Your task to perform on an android device: Empty the shopping cart on bestbuy.com. Search for razer huntsman on bestbuy.com, select the first entry, add it to the cart, then select checkout. Image 0: 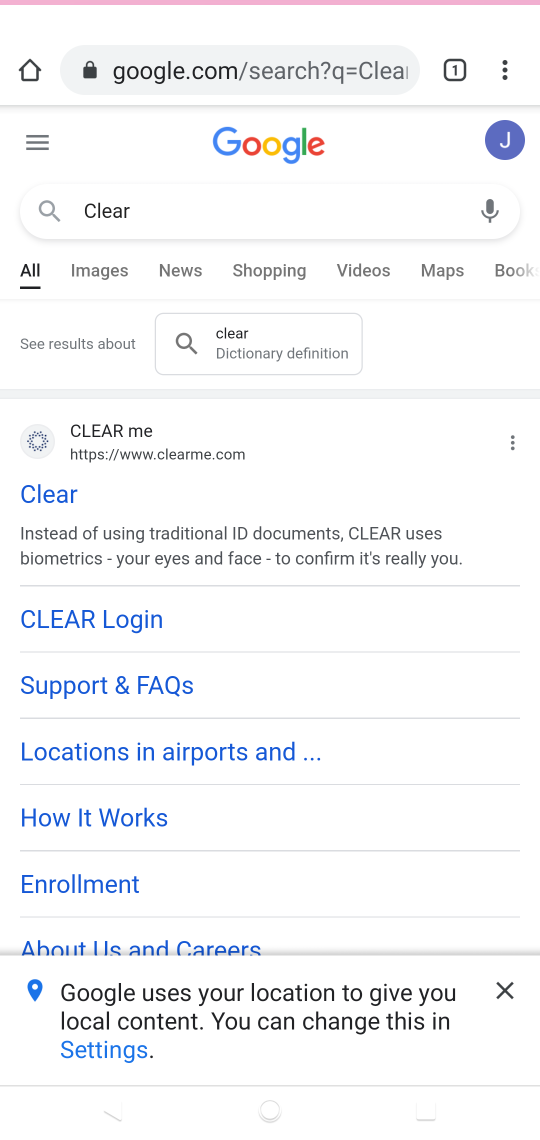
Step 0: press home button
Your task to perform on an android device: Empty the shopping cart on bestbuy.com. Search for razer huntsman on bestbuy.com, select the first entry, add it to the cart, then select checkout. Image 1: 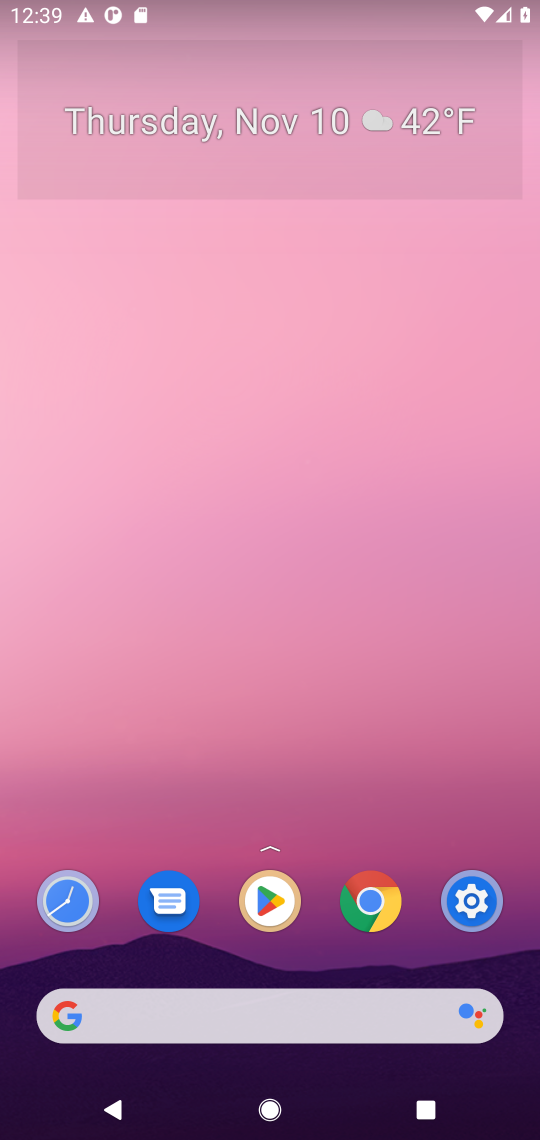
Step 1: drag from (265, 856) to (364, 0)
Your task to perform on an android device: Empty the shopping cart on bestbuy.com. Search for razer huntsman on bestbuy.com, select the first entry, add it to the cart, then select checkout. Image 2: 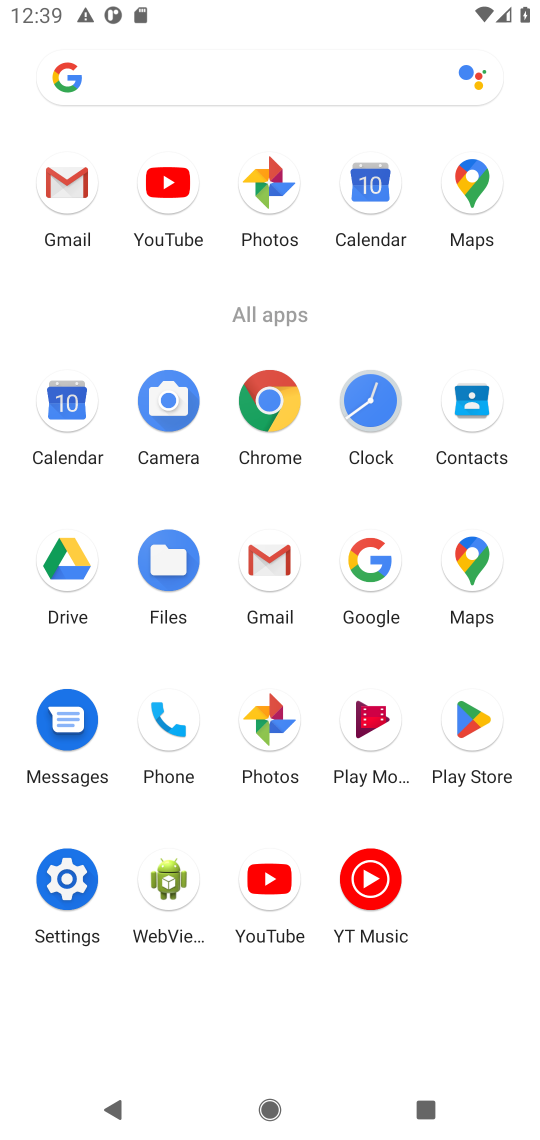
Step 2: click (267, 397)
Your task to perform on an android device: Empty the shopping cart on bestbuy.com. Search for razer huntsman on bestbuy.com, select the first entry, add it to the cart, then select checkout. Image 3: 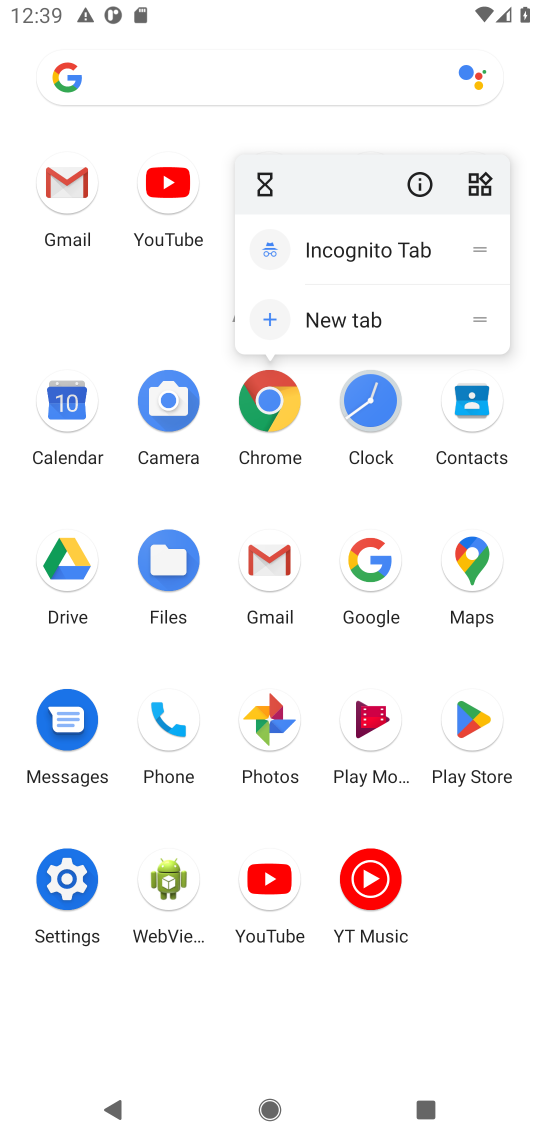
Step 3: click (245, 406)
Your task to perform on an android device: Empty the shopping cart on bestbuy.com. Search for razer huntsman on bestbuy.com, select the first entry, add it to the cart, then select checkout. Image 4: 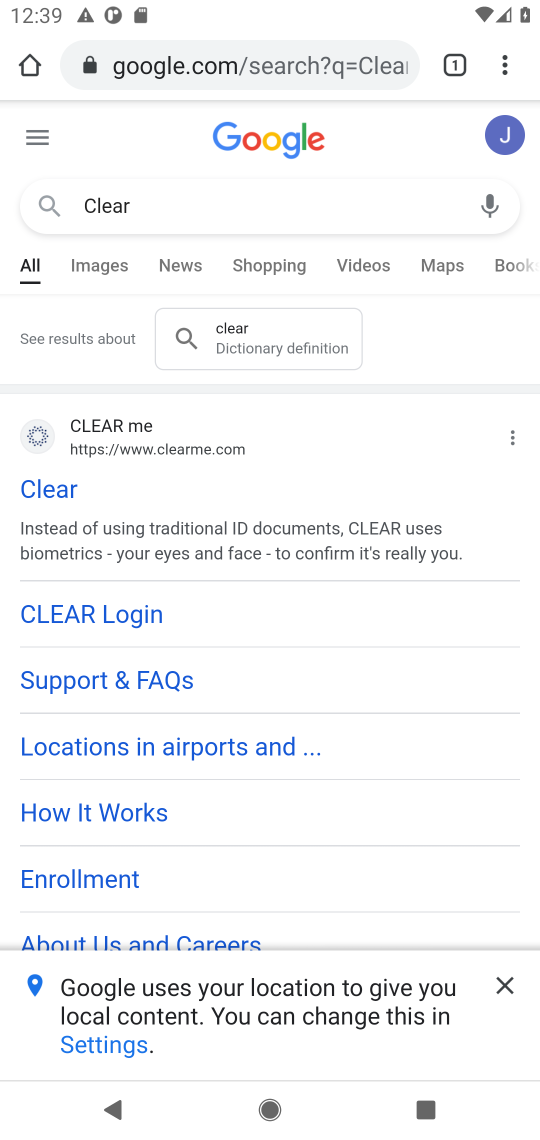
Step 4: click (171, 55)
Your task to perform on an android device: Empty the shopping cart on bestbuy.com. Search for razer huntsman on bestbuy.com, select the first entry, add it to the cart, then select checkout. Image 5: 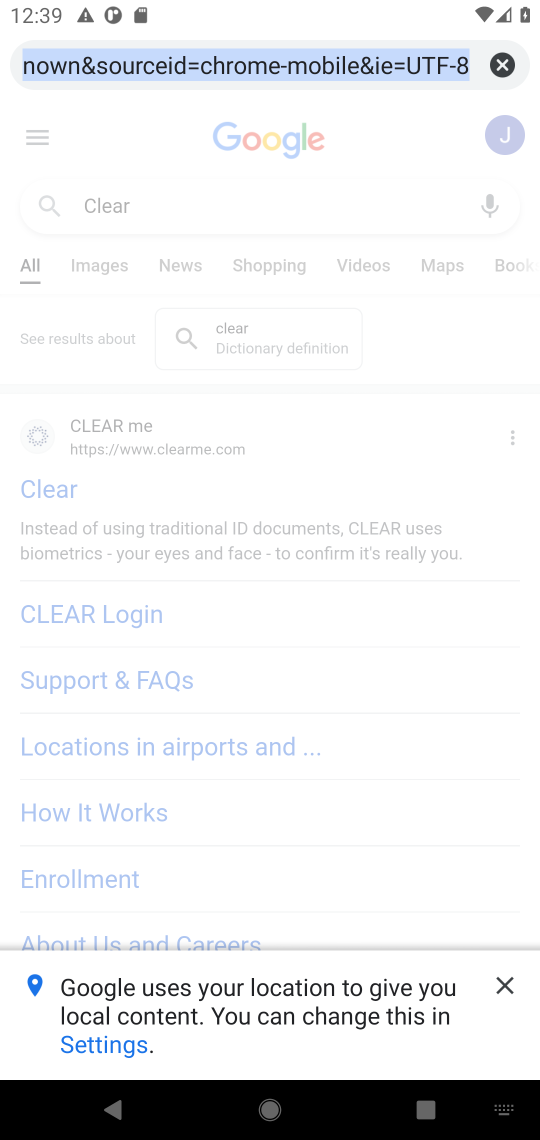
Step 5: click (484, 67)
Your task to perform on an android device: Empty the shopping cart on bestbuy.com. Search for razer huntsman on bestbuy.com, select the first entry, add it to the cart, then select checkout. Image 6: 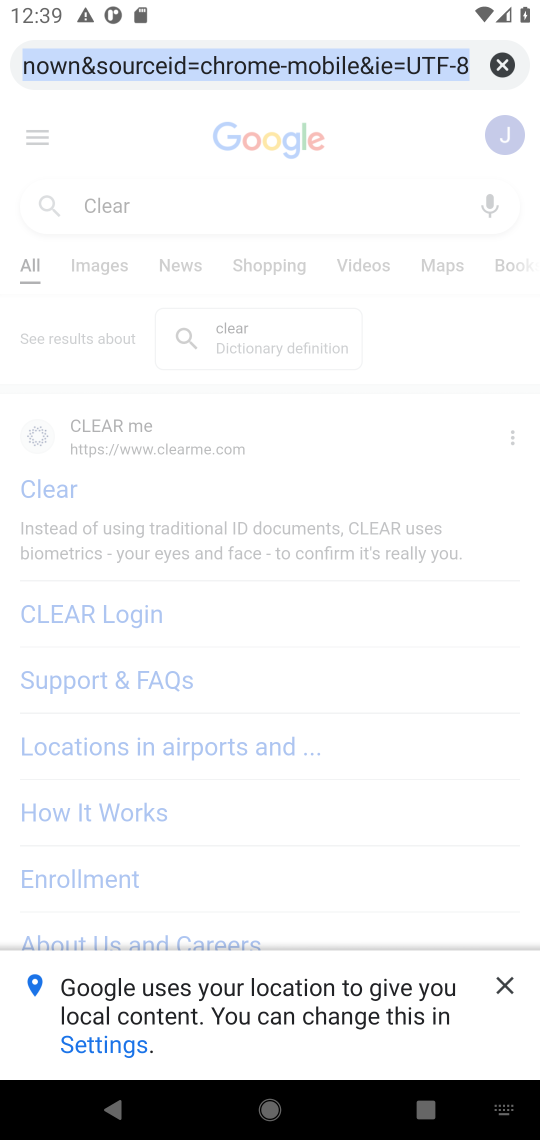
Step 6: click (493, 69)
Your task to perform on an android device: Empty the shopping cart on bestbuy.com. Search for razer huntsman on bestbuy.com, select the first entry, add it to the cart, then select checkout. Image 7: 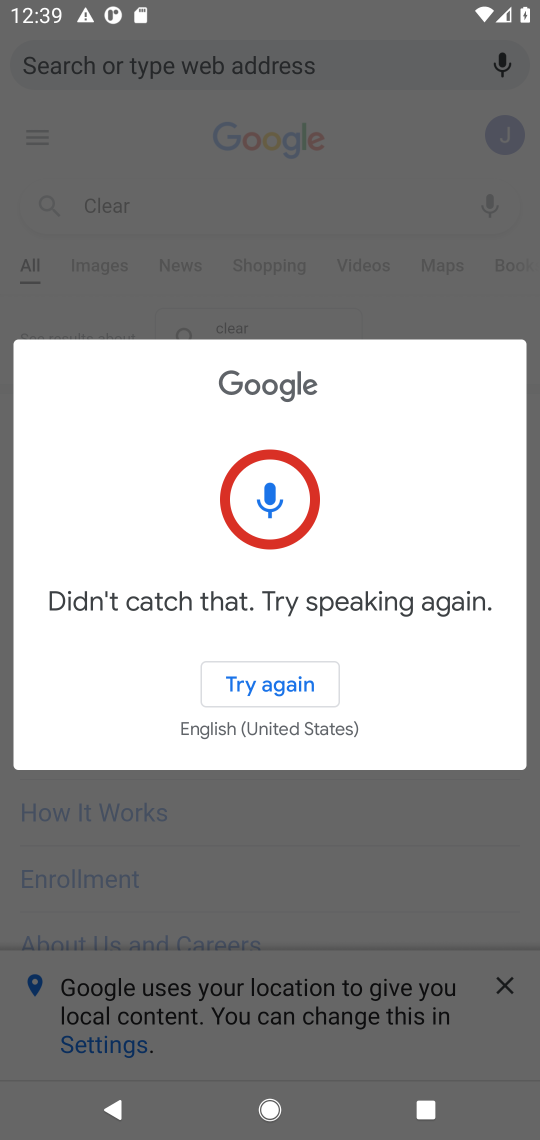
Step 7: click (275, 59)
Your task to perform on an android device: Empty the shopping cart on bestbuy.com. Search for razer huntsman on bestbuy.com, select the first entry, add it to the cart, then select checkout. Image 8: 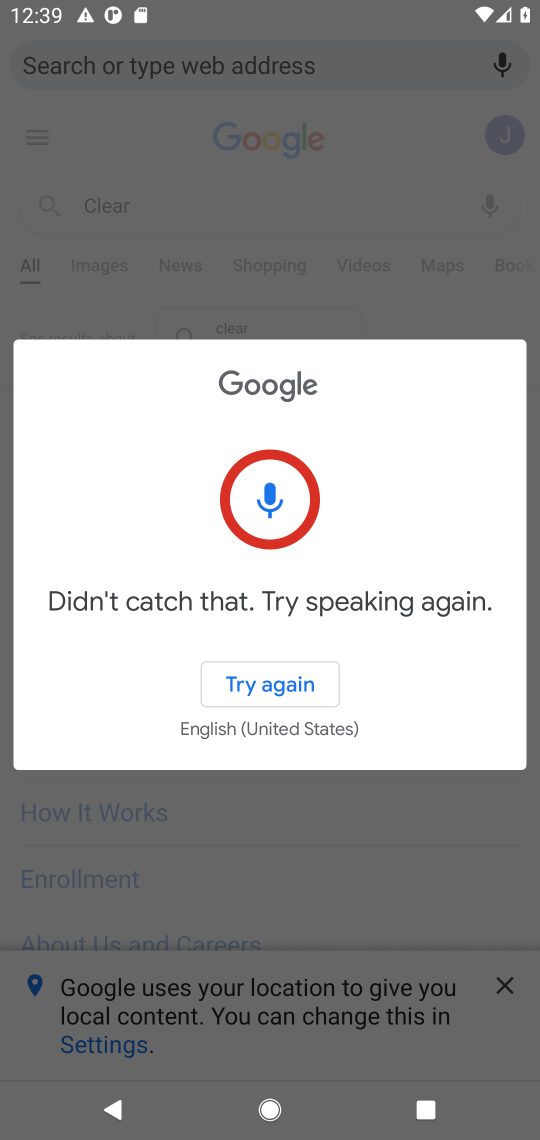
Step 8: click (273, 59)
Your task to perform on an android device: Empty the shopping cart on bestbuy.com. Search for razer huntsman on bestbuy.com, select the first entry, add it to the cart, then select checkout. Image 9: 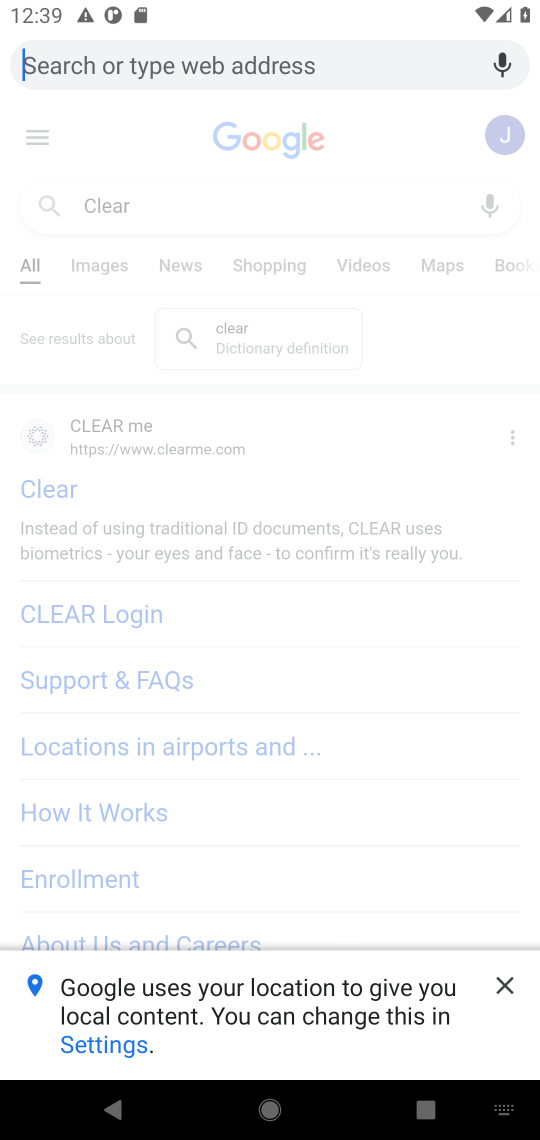
Step 9: type "bestbuy.com"
Your task to perform on an android device: Empty the shopping cart on bestbuy.com. Search for razer huntsman on bestbuy.com, select the first entry, add it to the cart, then select checkout. Image 10: 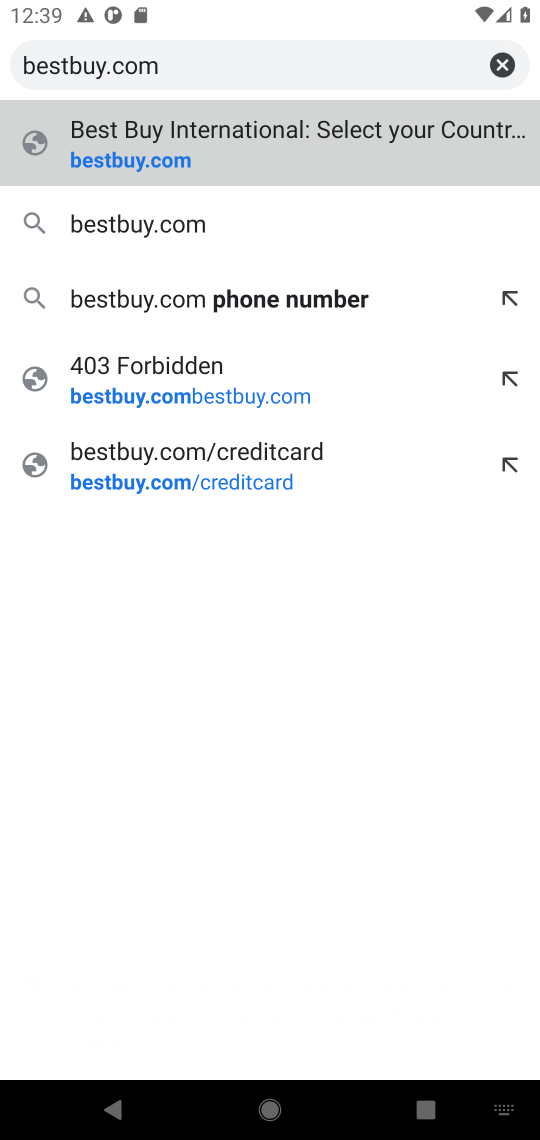
Step 10: press enter
Your task to perform on an android device: Empty the shopping cart on bestbuy.com. Search for razer huntsman on bestbuy.com, select the first entry, add it to the cart, then select checkout. Image 11: 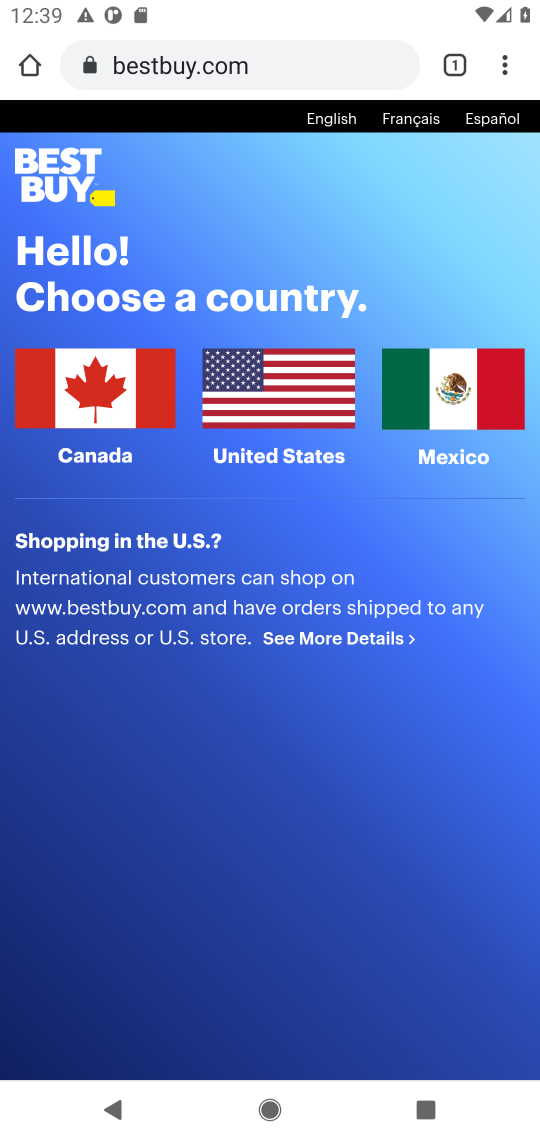
Step 11: click (84, 398)
Your task to perform on an android device: Empty the shopping cart on bestbuy.com. Search for razer huntsman on bestbuy.com, select the first entry, add it to the cart, then select checkout. Image 12: 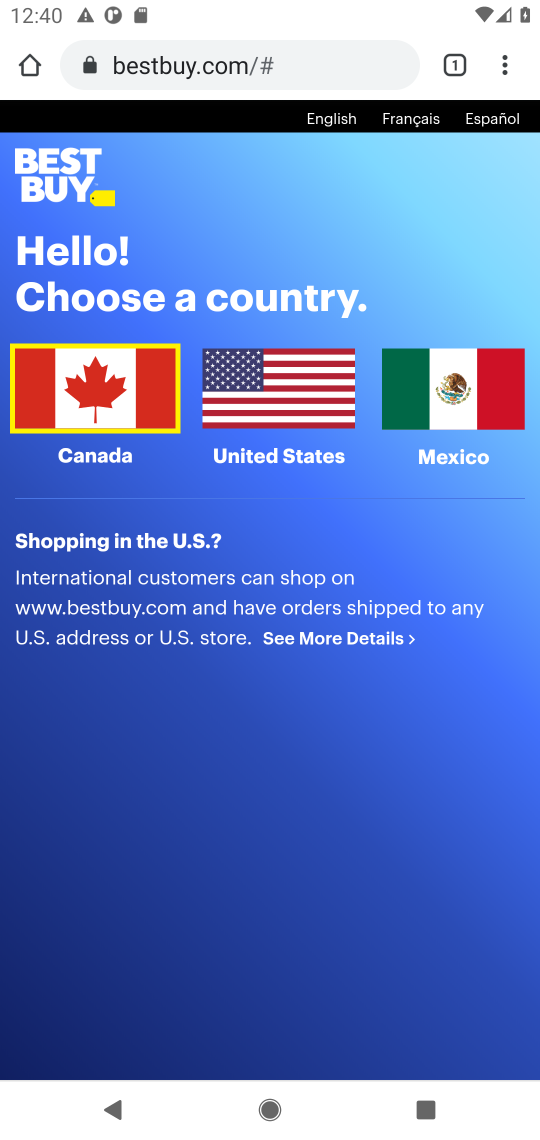
Step 12: click (86, 353)
Your task to perform on an android device: Empty the shopping cart on bestbuy.com. Search for razer huntsman on bestbuy.com, select the first entry, add it to the cart, then select checkout. Image 13: 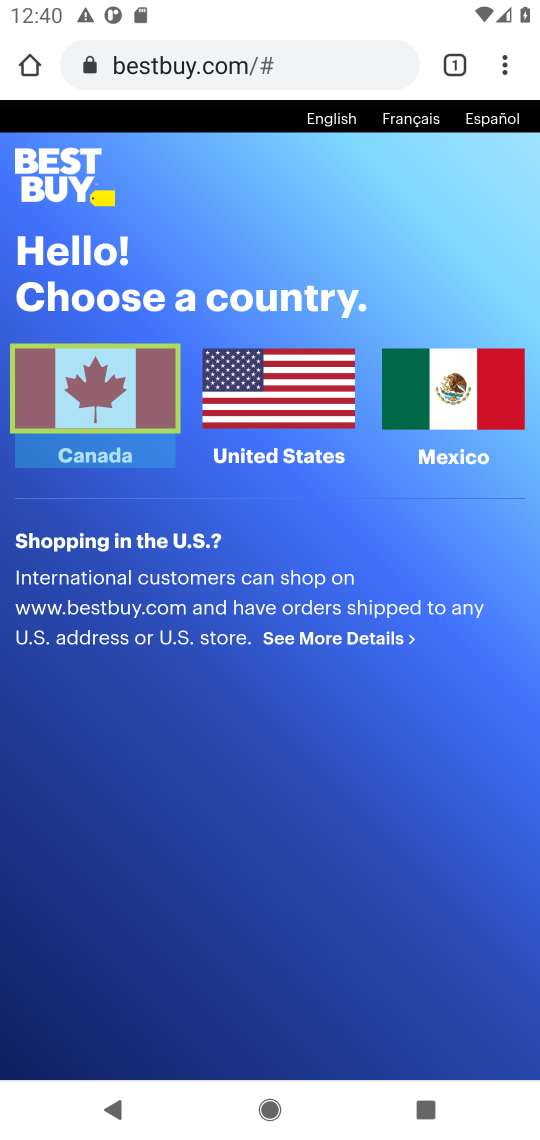
Step 13: click (73, 372)
Your task to perform on an android device: Empty the shopping cart on bestbuy.com. Search for razer huntsman on bestbuy.com, select the first entry, add it to the cart, then select checkout. Image 14: 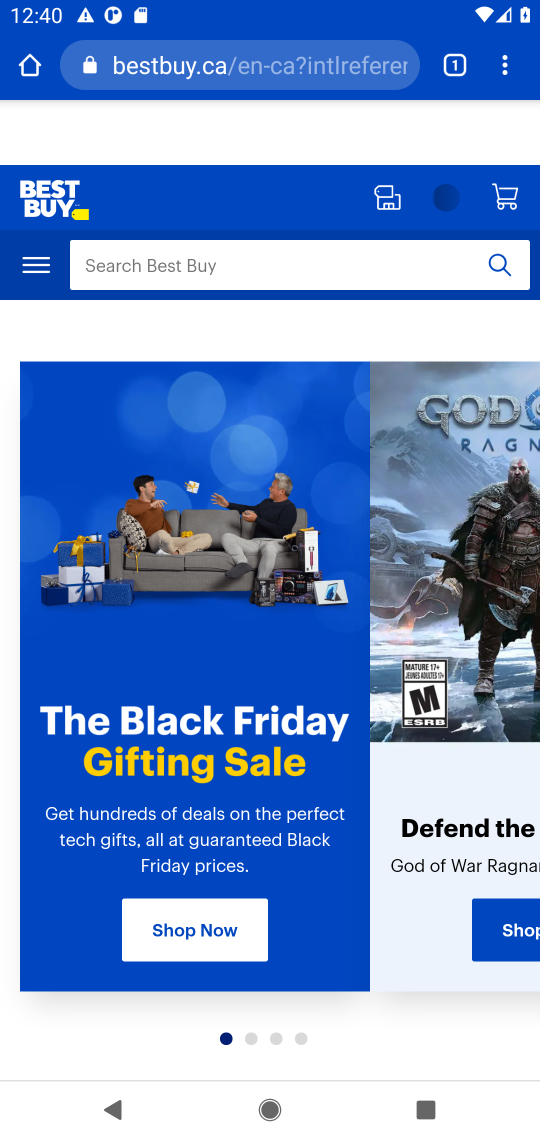
Step 14: click (510, 211)
Your task to perform on an android device: Empty the shopping cart on bestbuy.com. Search for razer huntsman on bestbuy.com, select the first entry, add it to the cart, then select checkout. Image 15: 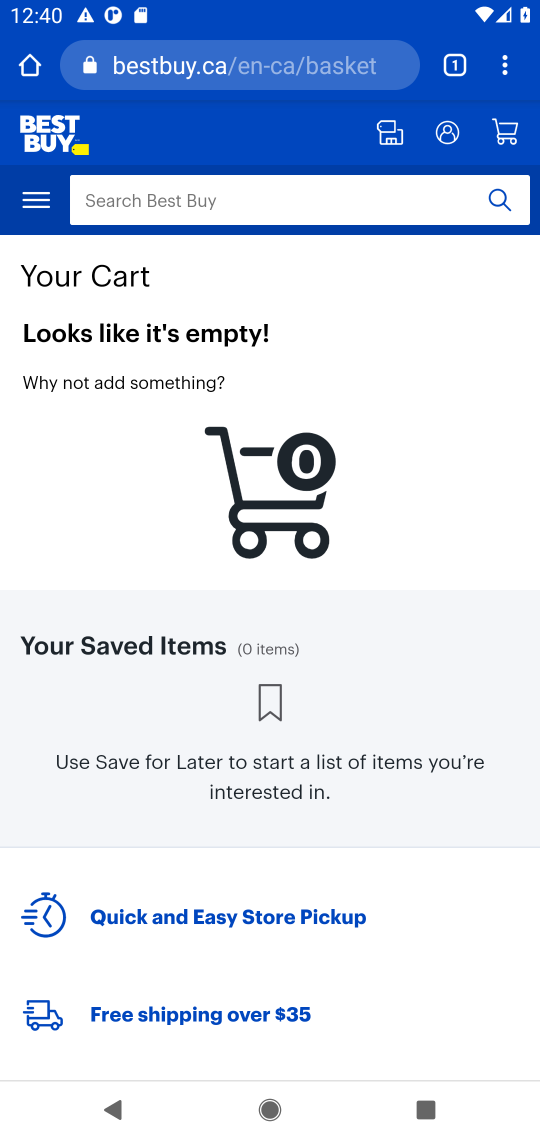
Step 15: click (377, 198)
Your task to perform on an android device: Empty the shopping cart on bestbuy.com. Search for razer huntsman on bestbuy.com, select the first entry, add it to the cart, then select checkout. Image 16: 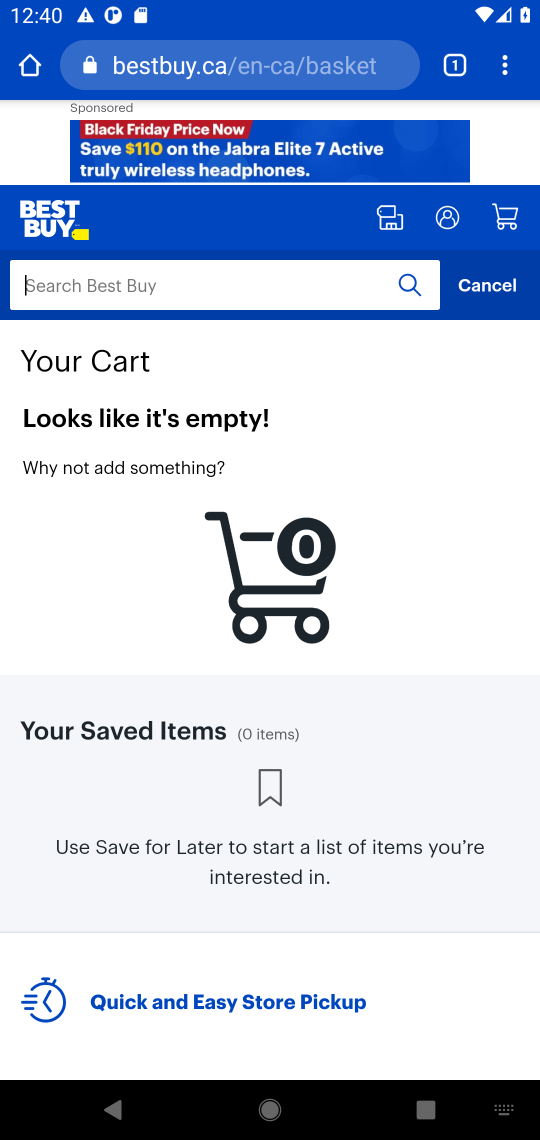
Step 16: type " razer huntsman"
Your task to perform on an android device: Empty the shopping cart on bestbuy.com. Search for razer huntsman on bestbuy.com, select the first entry, add it to the cart, then select checkout. Image 17: 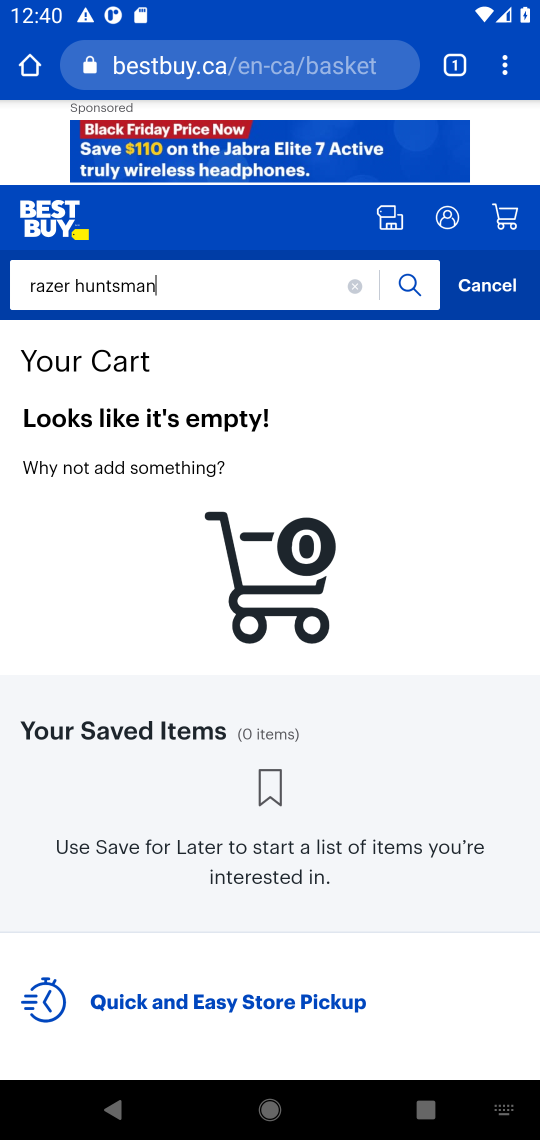
Step 17: press enter
Your task to perform on an android device: Empty the shopping cart on bestbuy.com. Search for razer huntsman on bestbuy.com, select the first entry, add it to the cart, then select checkout. Image 18: 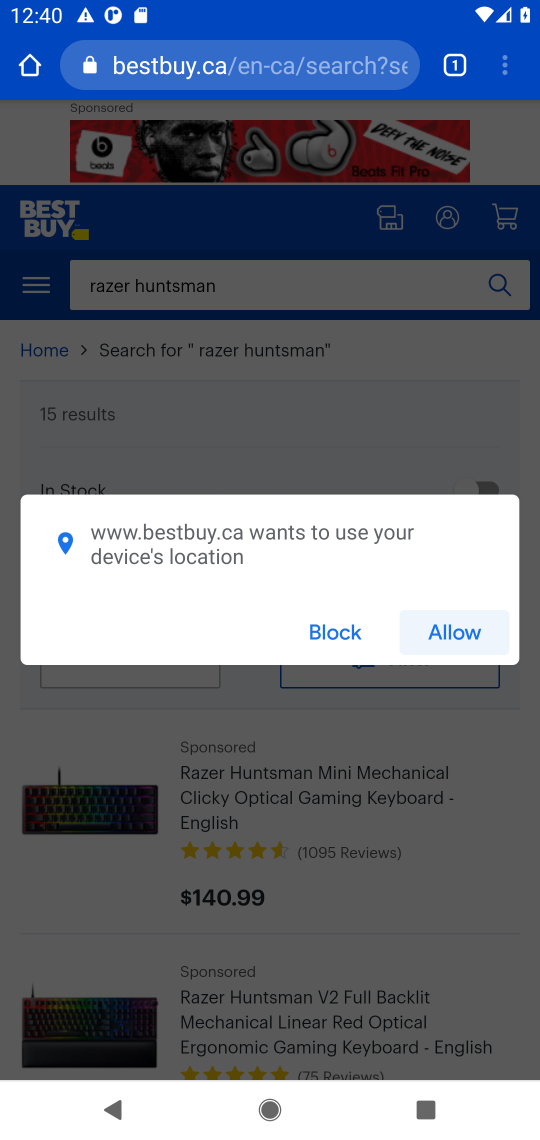
Step 18: click (470, 623)
Your task to perform on an android device: Empty the shopping cart on bestbuy.com. Search for razer huntsman on bestbuy.com, select the first entry, add it to the cart, then select checkout. Image 19: 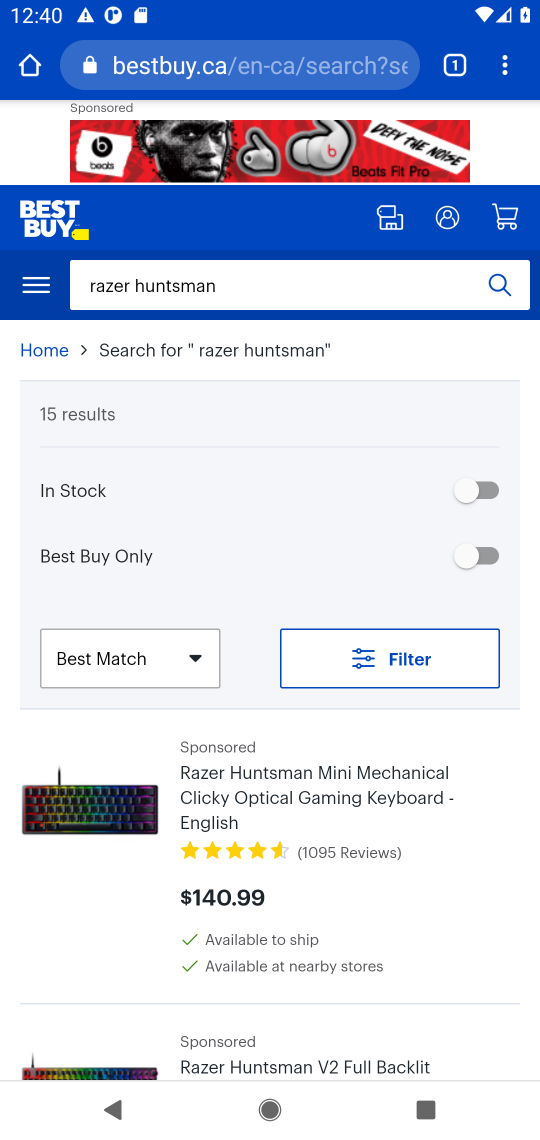
Step 19: click (276, 825)
Your task to perform on an android device: Empty the shopping cart on bestbuy.com. Search for razer huntsman on bestbuy.com, select the first entry, add it to the cart, then select checkout. Image 20: 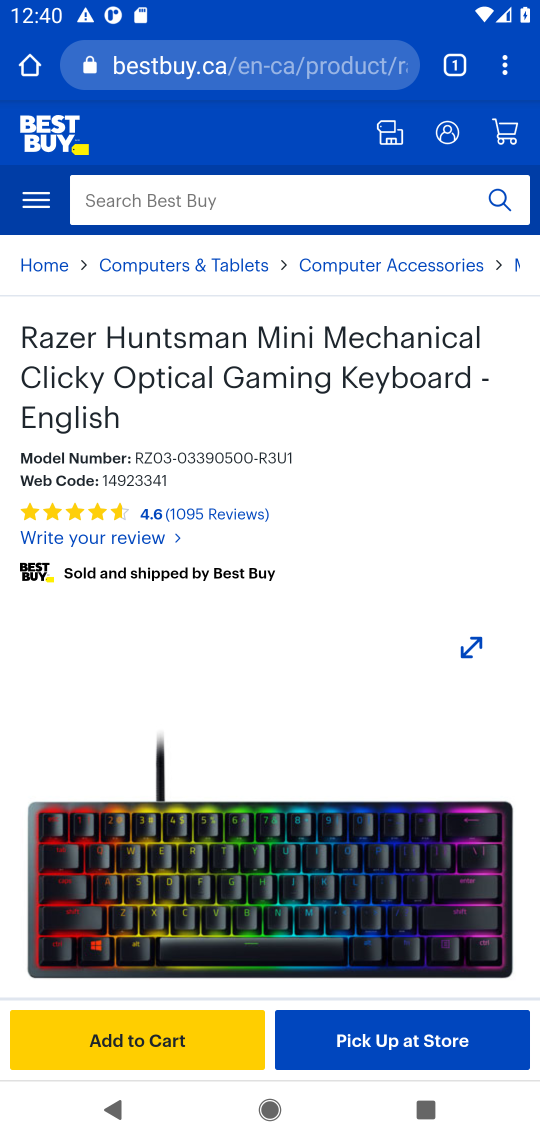
Step 20: click (182, 1025)
Your task to perform on an android device: Empty the shopping cart on bestbuy.com. Search for razer huntsman on bestbuy.com, select the first entry, add it to the cart, then select checkout. Image 21: 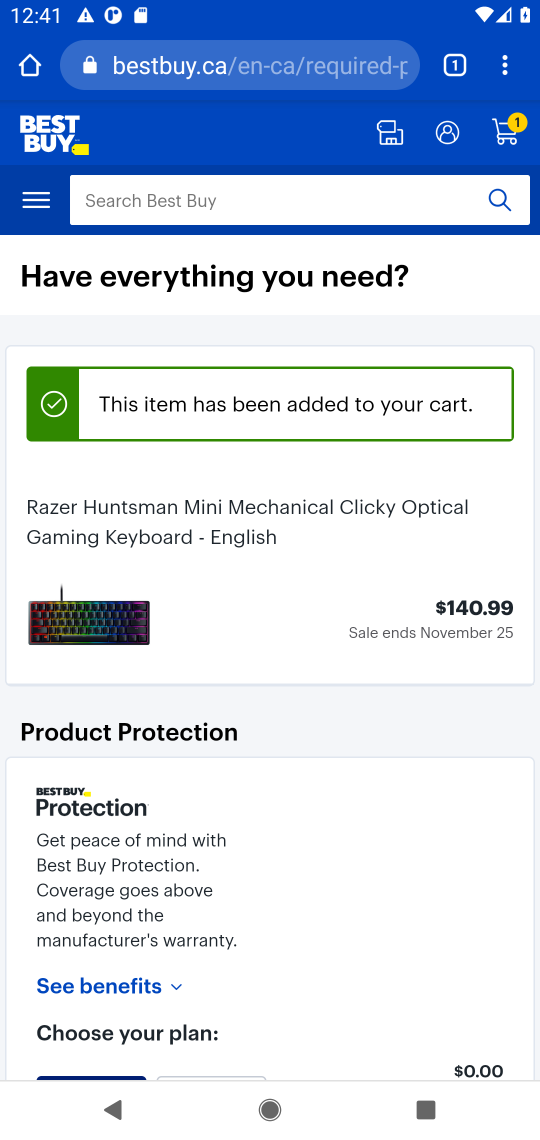
Step 21: click (502, 119)
Your task to perform on an android device: Empty the shopping cart on bestbuy.com. Search for razer huntsman on bestbuy.com, select the first entry, add it to the cart, then select checkout. Image 22: 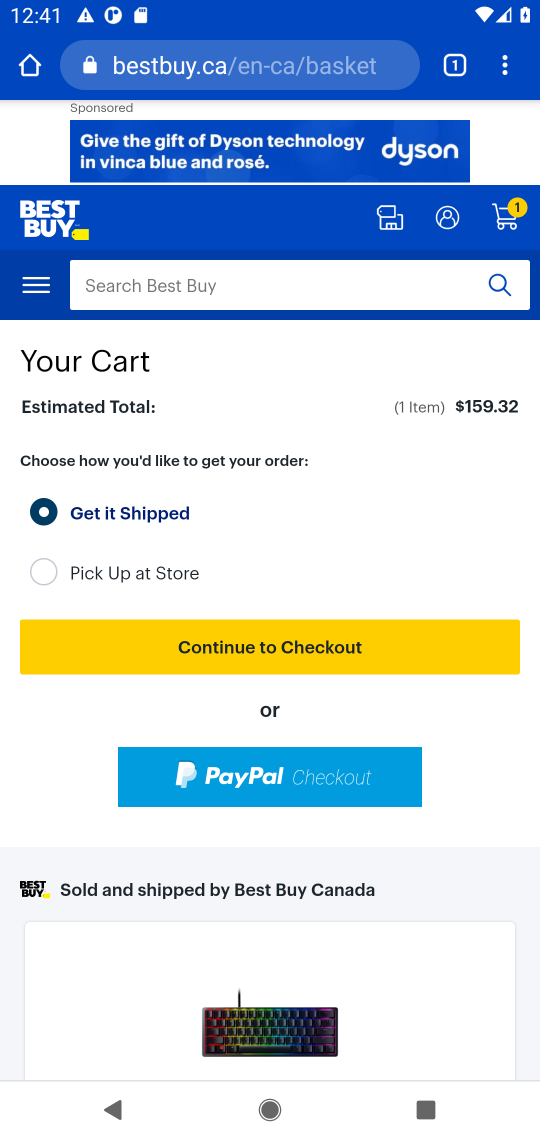
Step 22: click (319, 648)
Your task to perform on an android device: Empty the shopping cart on bestbuy.com. Search for razer huntsman on bestbuy.com, select the first entry, add it to the cart, then select checkout. Image 23: 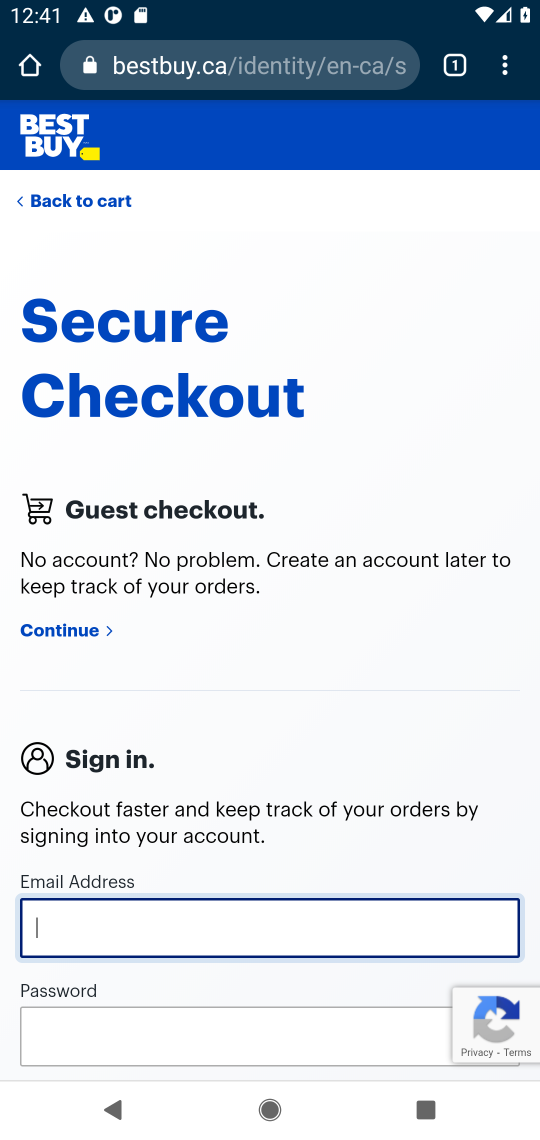
Step 23: task complete